Your task to perform on an android device: turn off wifi Image 0: 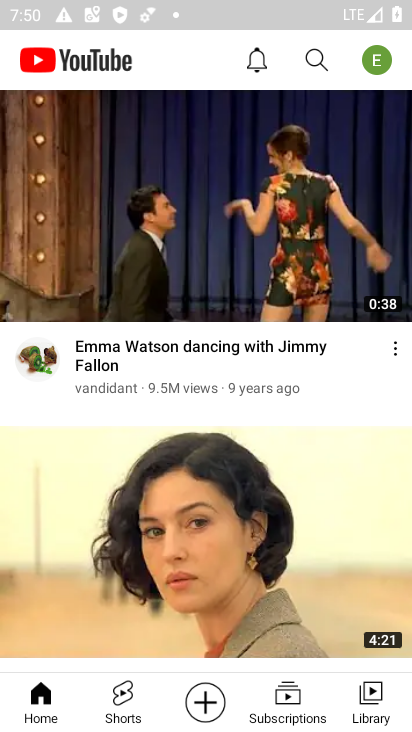
Step 0: press home button
Your task to perform on an android device: turn off wifi Image 1: 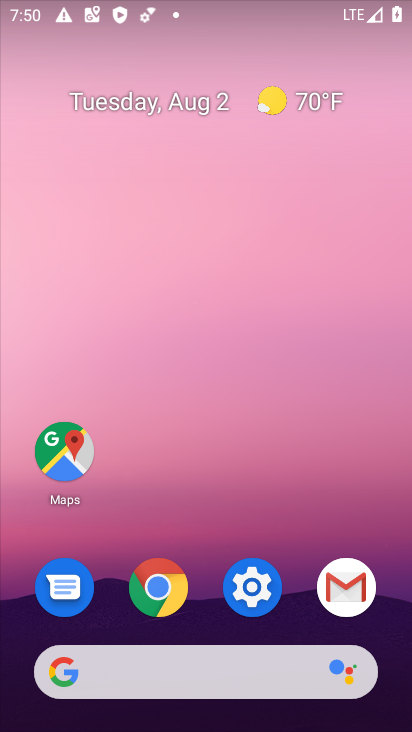
Step 1: click (261, 598)
Your task to perform on an android device: turn off wifi Image 2: 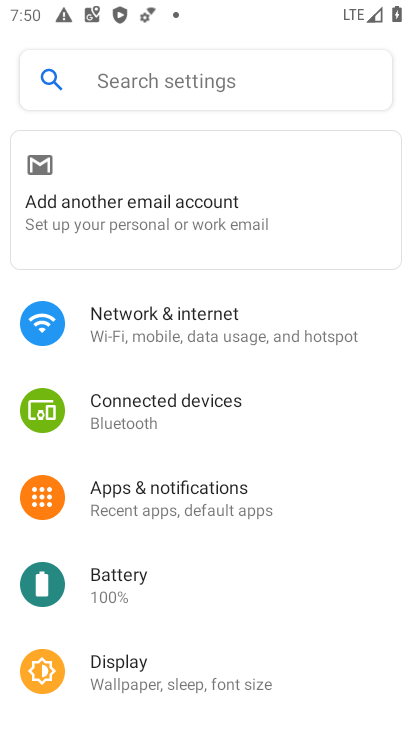
Step 2: click (172, 341)
Your task to perform on an android device: turn off wifi Image 3: 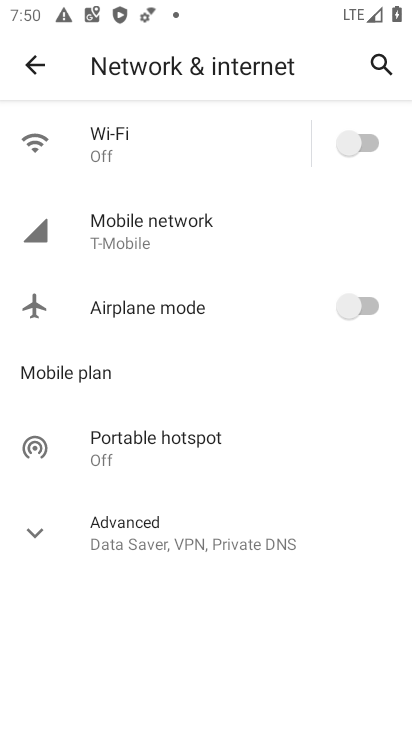
Step 3: click (153, 139)
Your task to perform on an android device: turn off wifi Image 4: 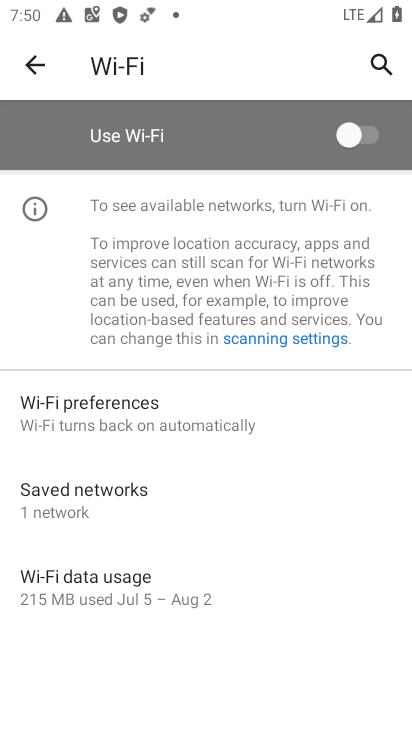
Step 4: click (331, 142)
Your task to perform on an android device: turn off wifi Image 5: 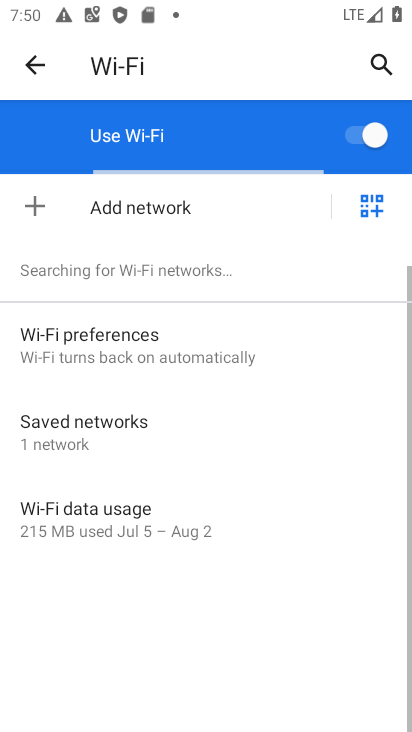
Step 5: click (333, 142)
Your task to perform on an android device: turn off wifi Image 6: 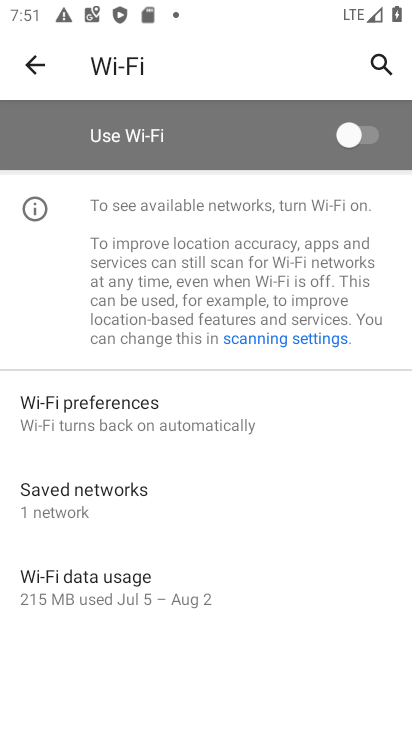
Step 6: task complete